Your task to perform on an android device: create a new album in the google photos Image 0: 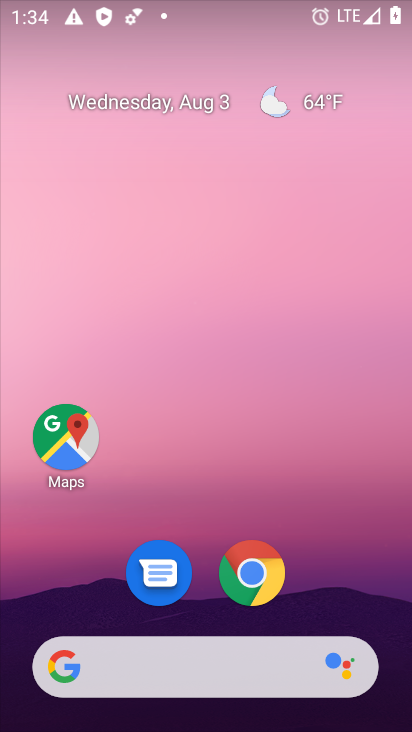
Step 0: drag from (197, 630) to (224, 237)
Your task to perform on an android device: create a new album in the google photos Image 1: 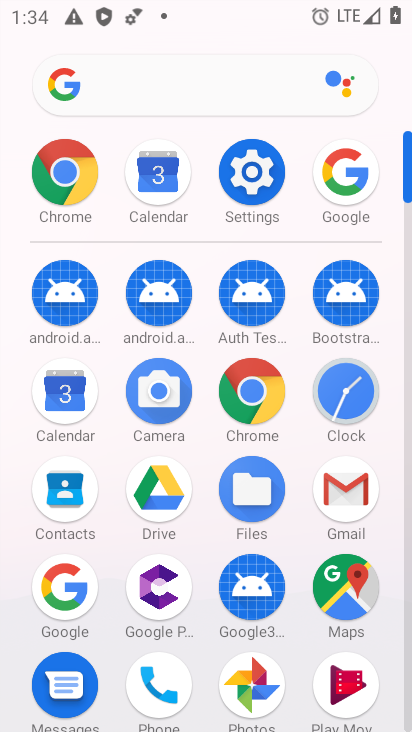
Step 1: click (260, 684)
Your task to perform on an android device: create a new album in the google photos Image 2: 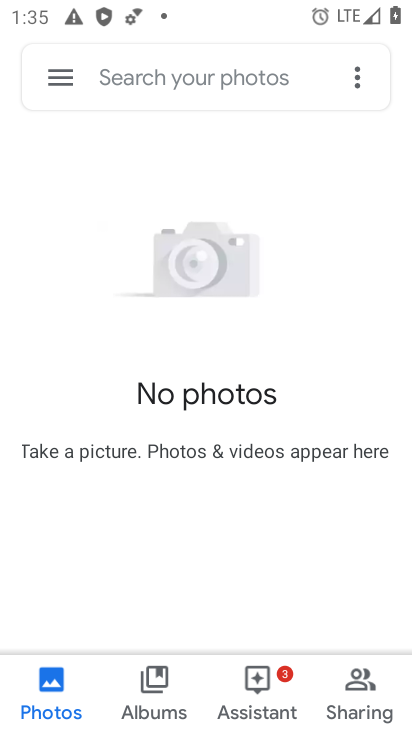
Step 2: click (147, 704)
Your task to perform on an android device: create a new album in the google photos Image 3: 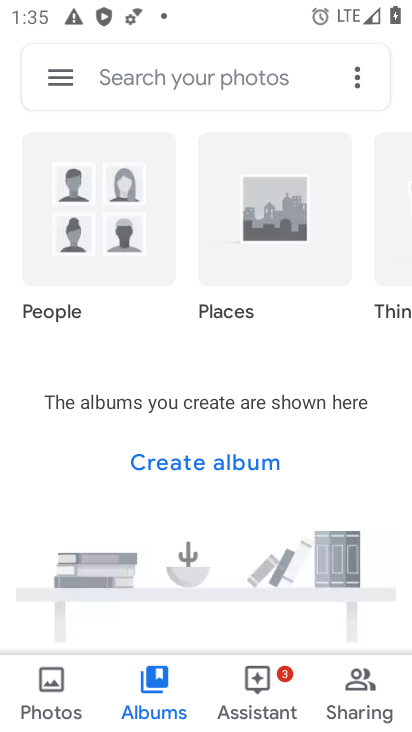
Step 3: drag from (224, 504) to (193, 165)
Your task to perform on an android device: create a new album in the google photos Image 4: 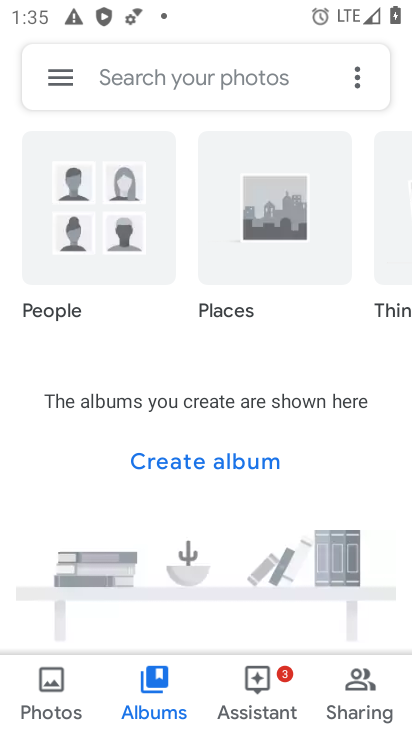
Step 4: click (166, 454)
Your task to perform on an android device: create a new album in the google photos Image 5: 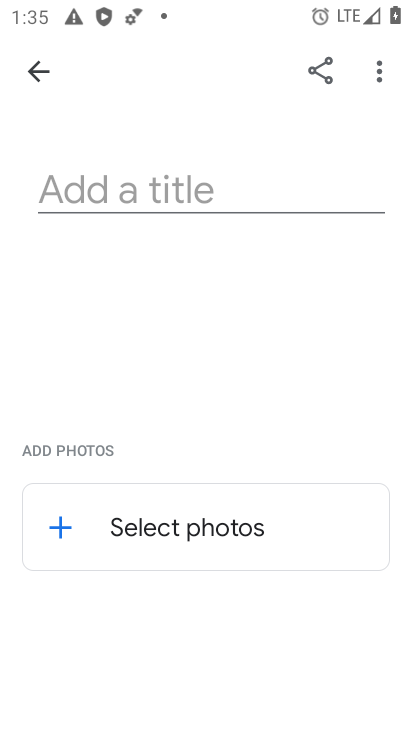
Step 5: click (135, 183)
Your task to perform on an android device: create a new album in the google photos Image 6: 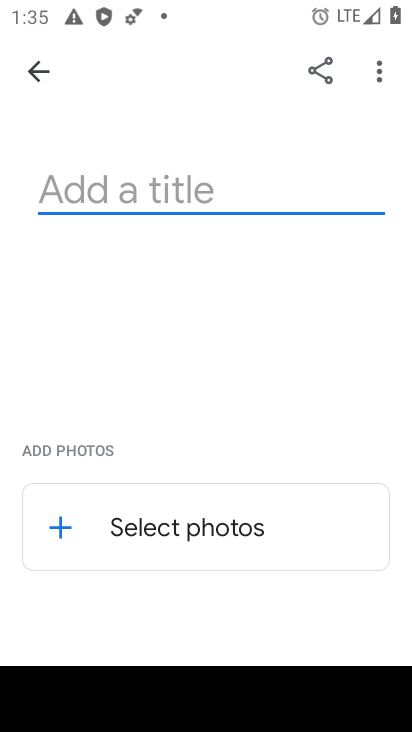
Step 6: click (48, 521)
Your task to perform on an android device: create a new album in the google photos Image 7: 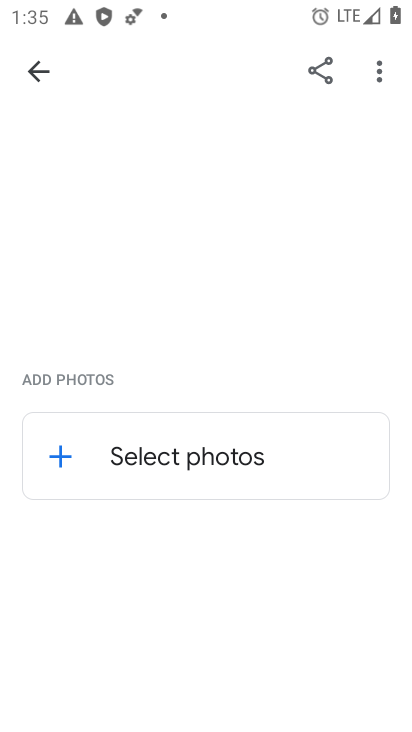
Step 7: click (65, 445)
Your task to perform on an android device: create a new album in the google photos Image 8: 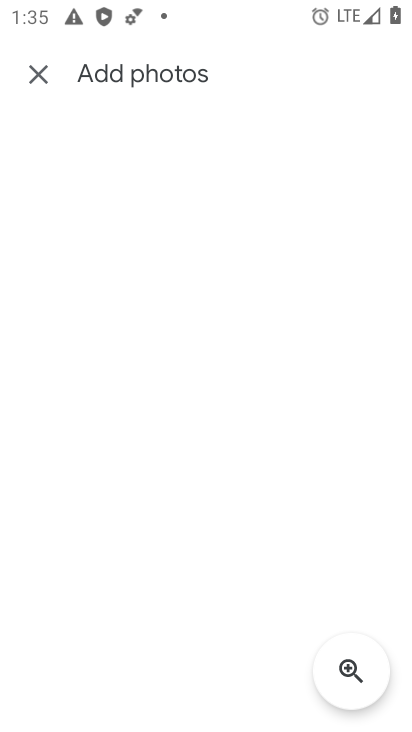
Step 8: click (44, 75)
Your task to perform on an android device: create a new album in the google photos Image 9: 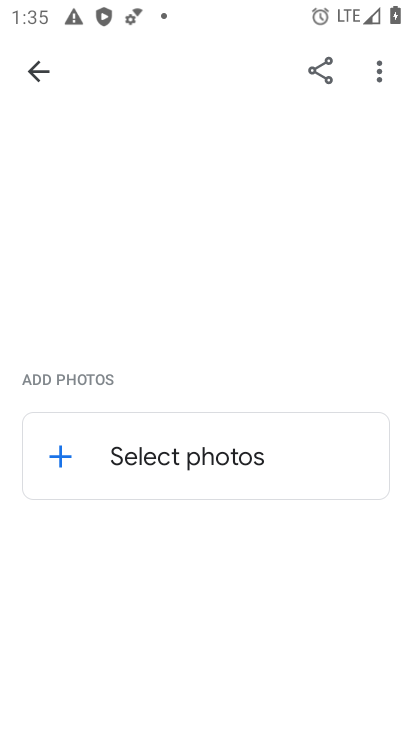
Step 9: task complete